Your task to perform on an android device: Search for Italian restaurants on Maps Image 0: 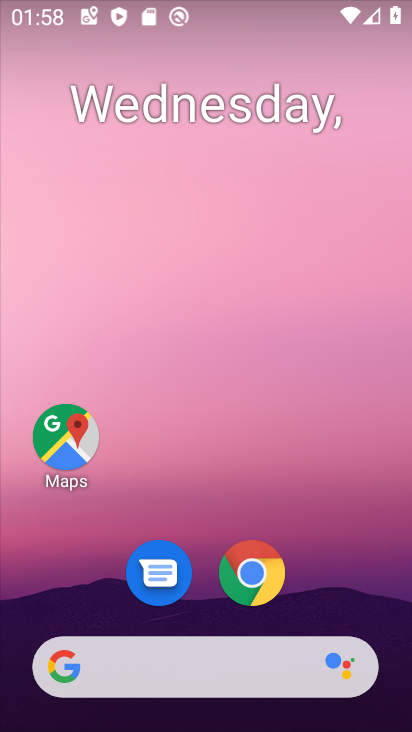
Step 0: click (67, 440)
Your task to perform on an android device: Search for Italian restaurants on Maps Image 1: 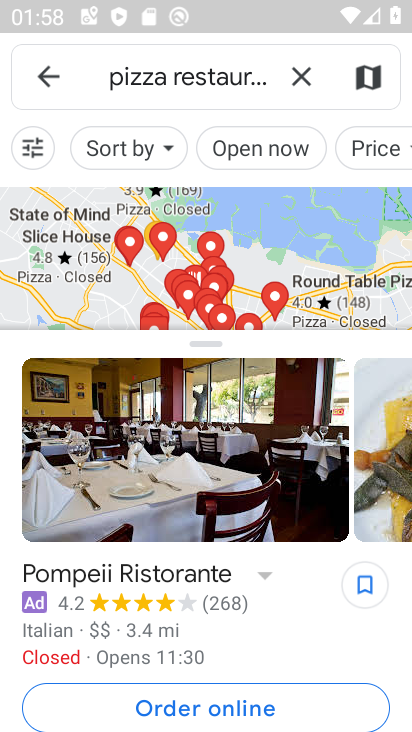
Step 1: click (300, 76)
Your task to perform on an android device: Search for Italian restaurants on Maps Image 2: 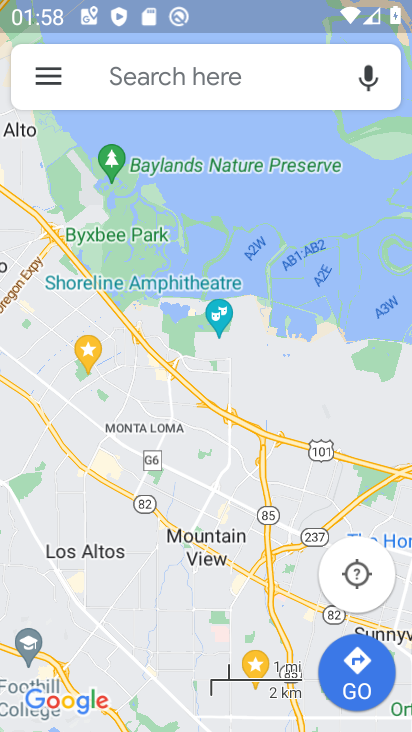
Step 2: click (230, 70)
Your task to perform on an android device: Search for Italian restaurants on Maps Image 3: 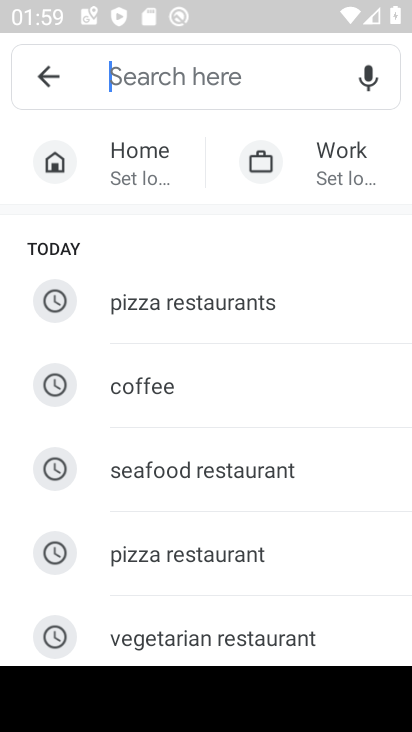
Step 3: type "Italian restaurants"
Your task to perform on an android device: Search for Italian restaurants on Maps Image 4: 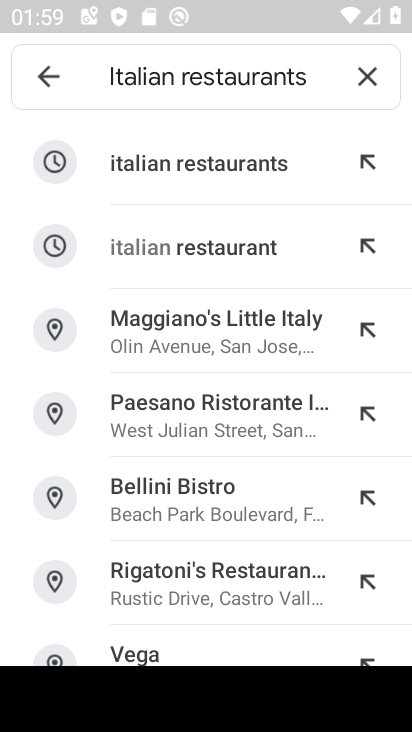
Step 4: click (268, 164)
Your task to perform on an android device: Search for Italian restaurants on Maps Image 5: 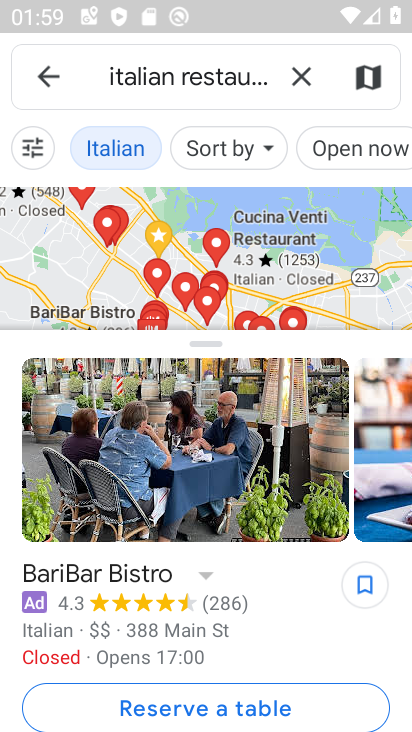
Step 5: task complete